Your task to perform on an android device: turn off notifications in google photos Image 0: 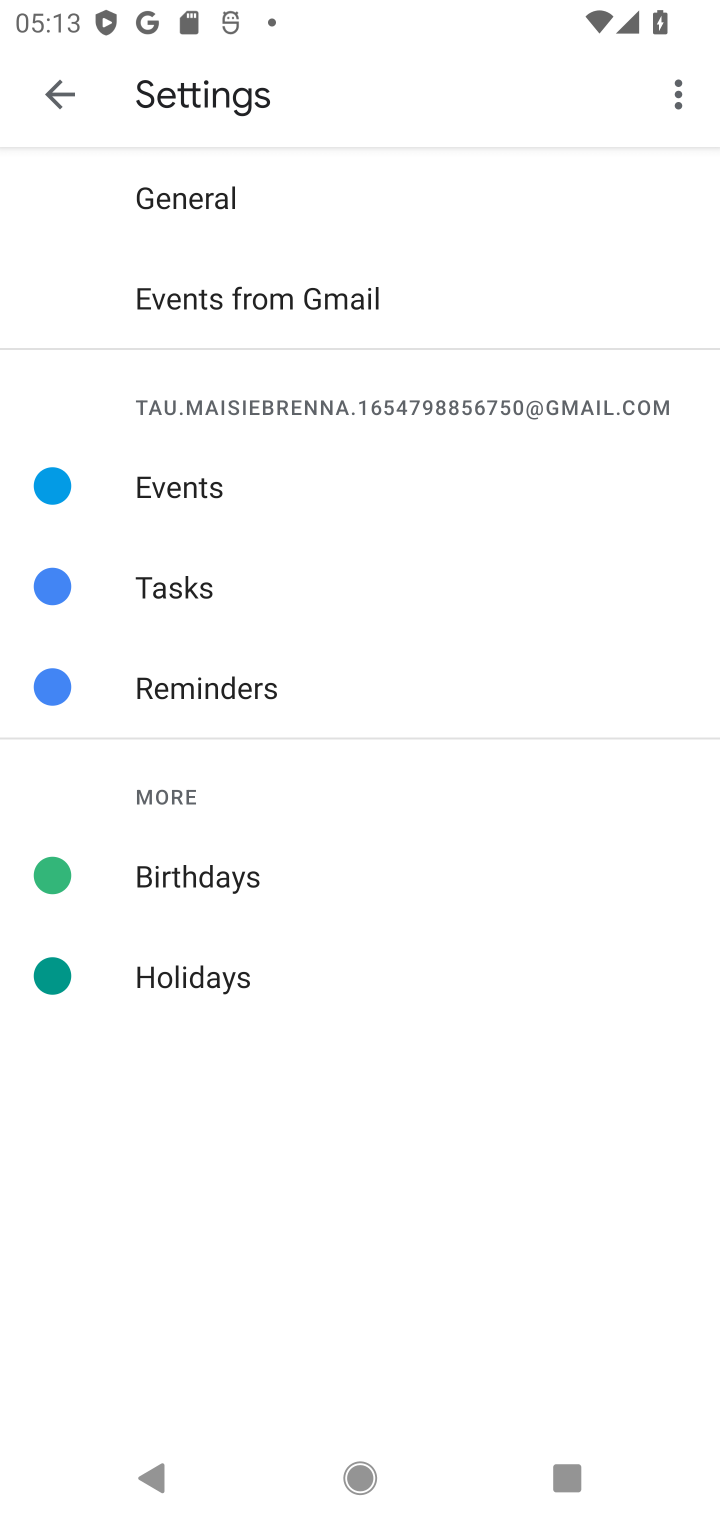
Step 0: press home button
Your task to perform on an android device: turn off notifications in google photos Image 1: 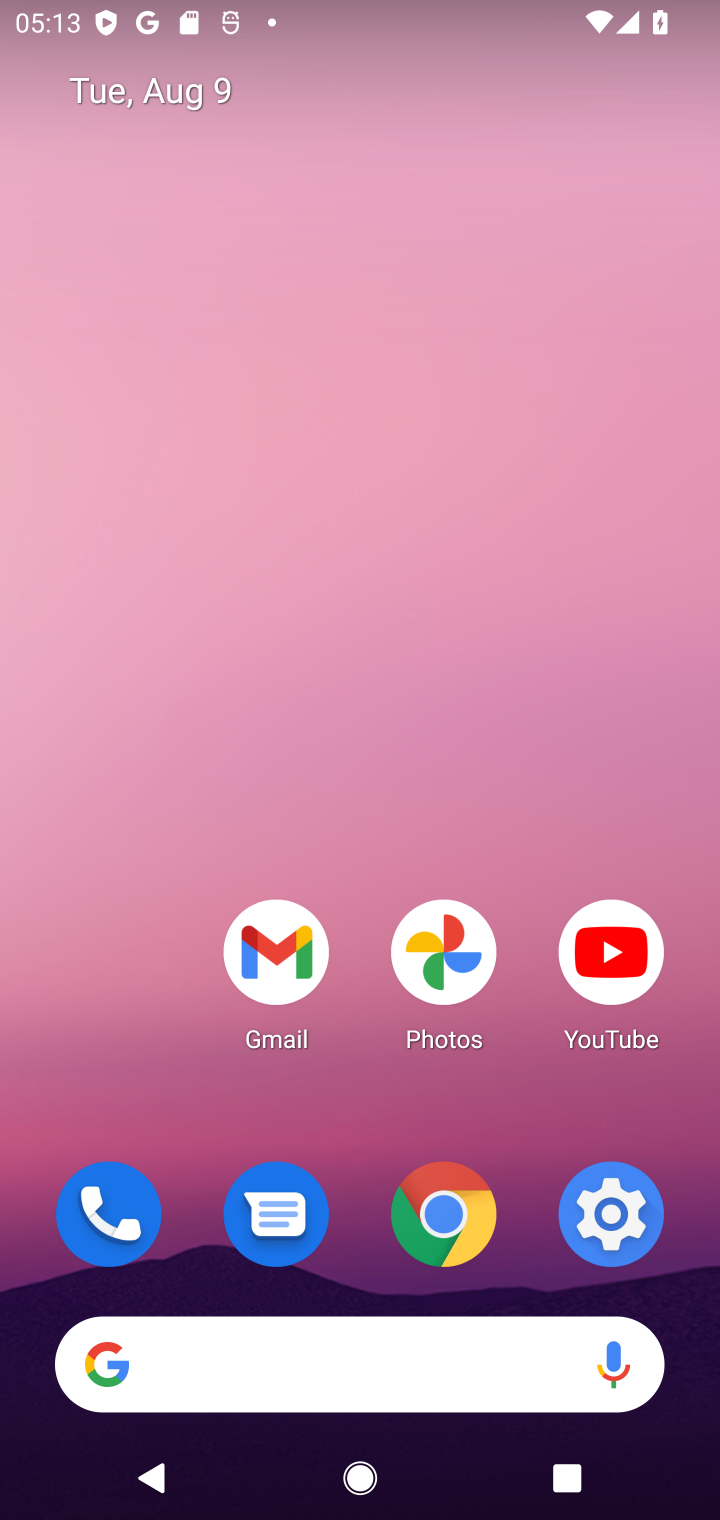
Step 1: drag from (391, 1422) to (312, 84)
Your task to perform on an android device: turn off notifications in google photos Image 2: 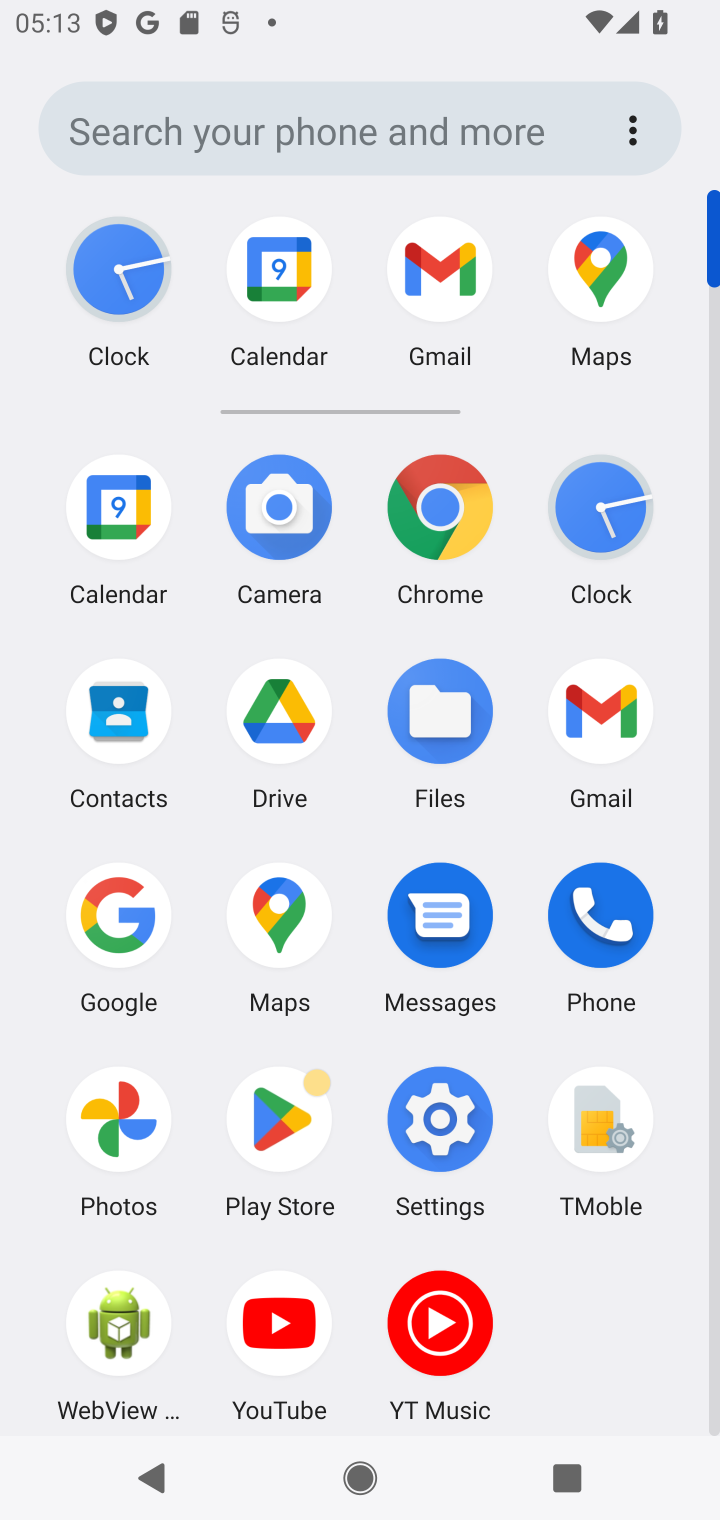
Step 2: click (124, 1101)
Your task to perform on an android device: turn off notifications in google photos Image 3: 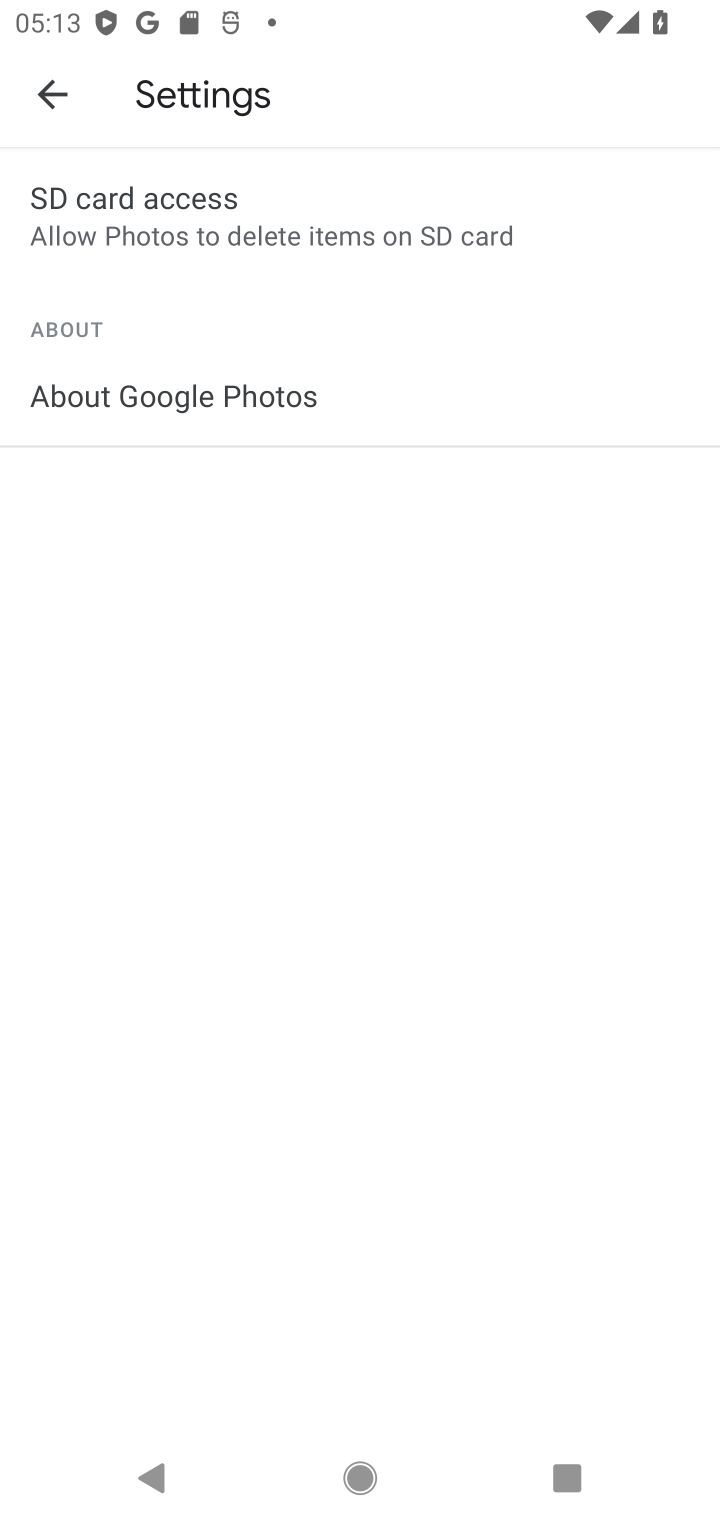
Step 3: click (36, 97)
Your task to perform on an android device: turn off notifications in google photos Image 4: 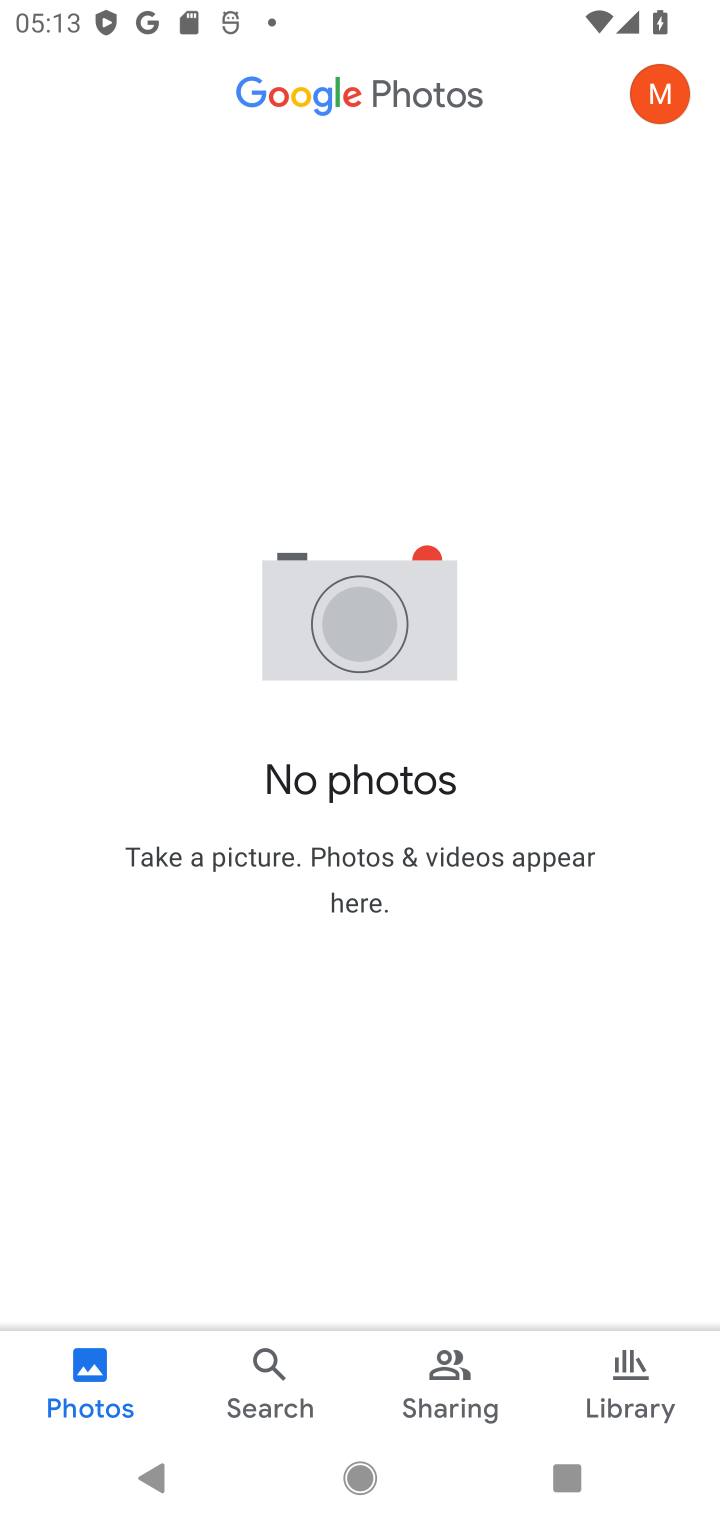
Step 4: click (660, 110)
Your task to perform on an android device: turn off notifications in google photos Image 5: 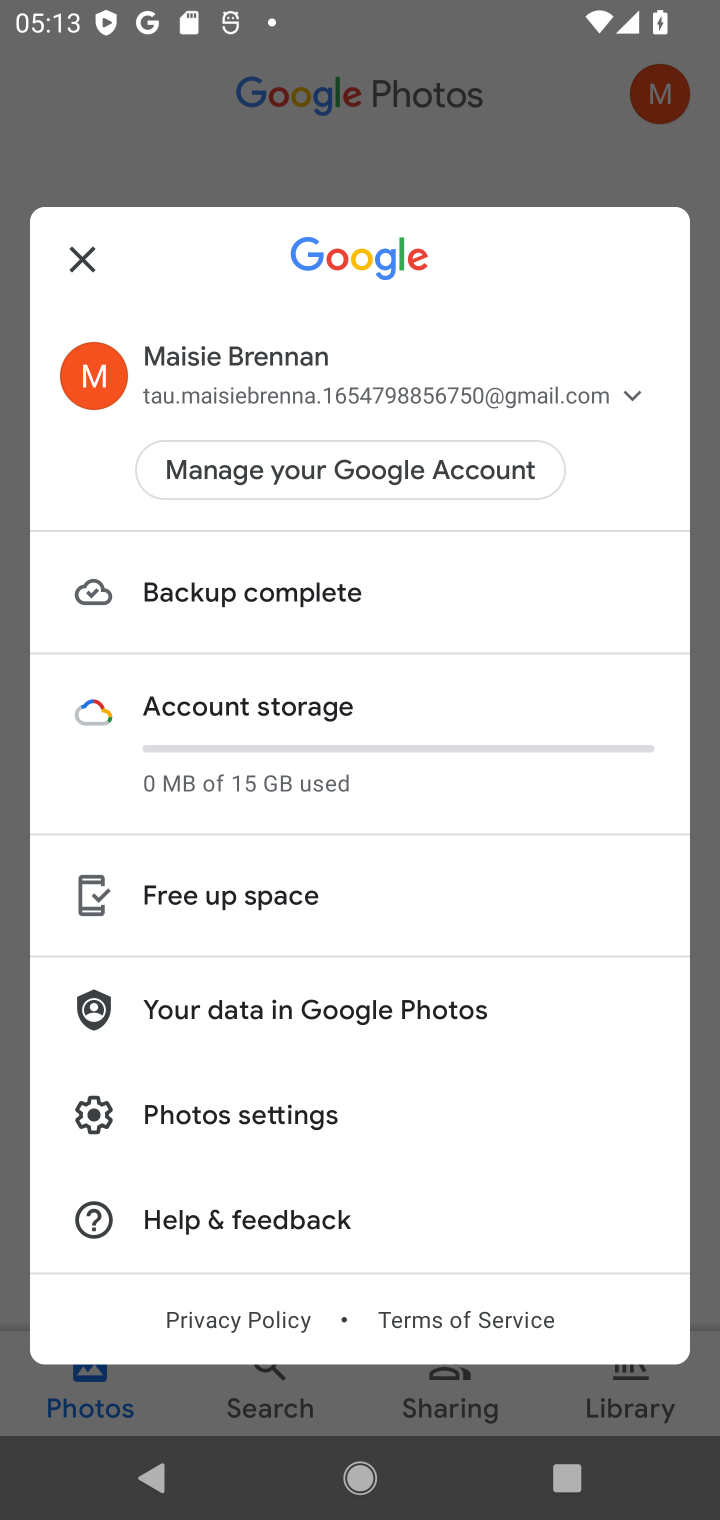
Step 5: click (277, 1115)
Your task to perform on an android device: turn off notifications in google photos Image 6: 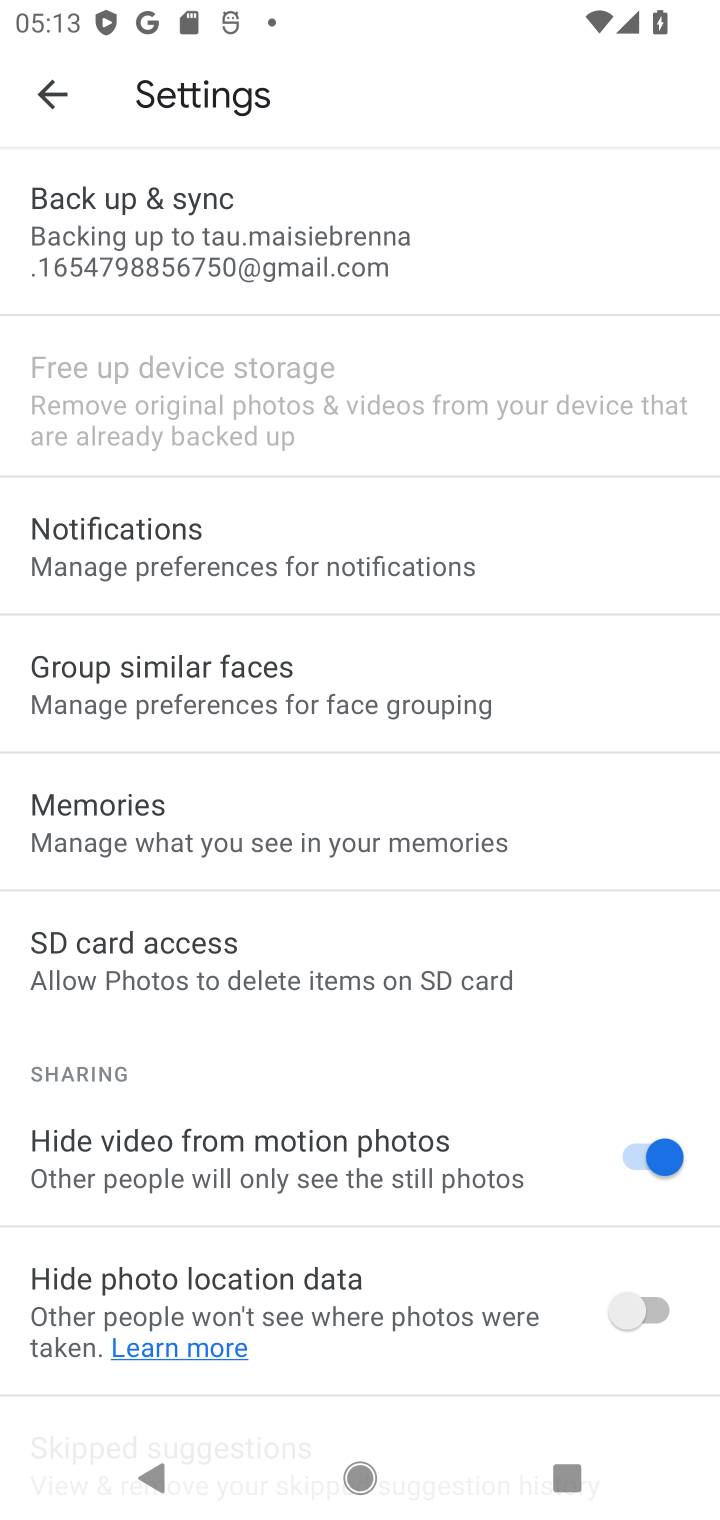
Step 6: click (183, 538)
Your task to perform on an android device: turn off notifications in google photos Image 7: 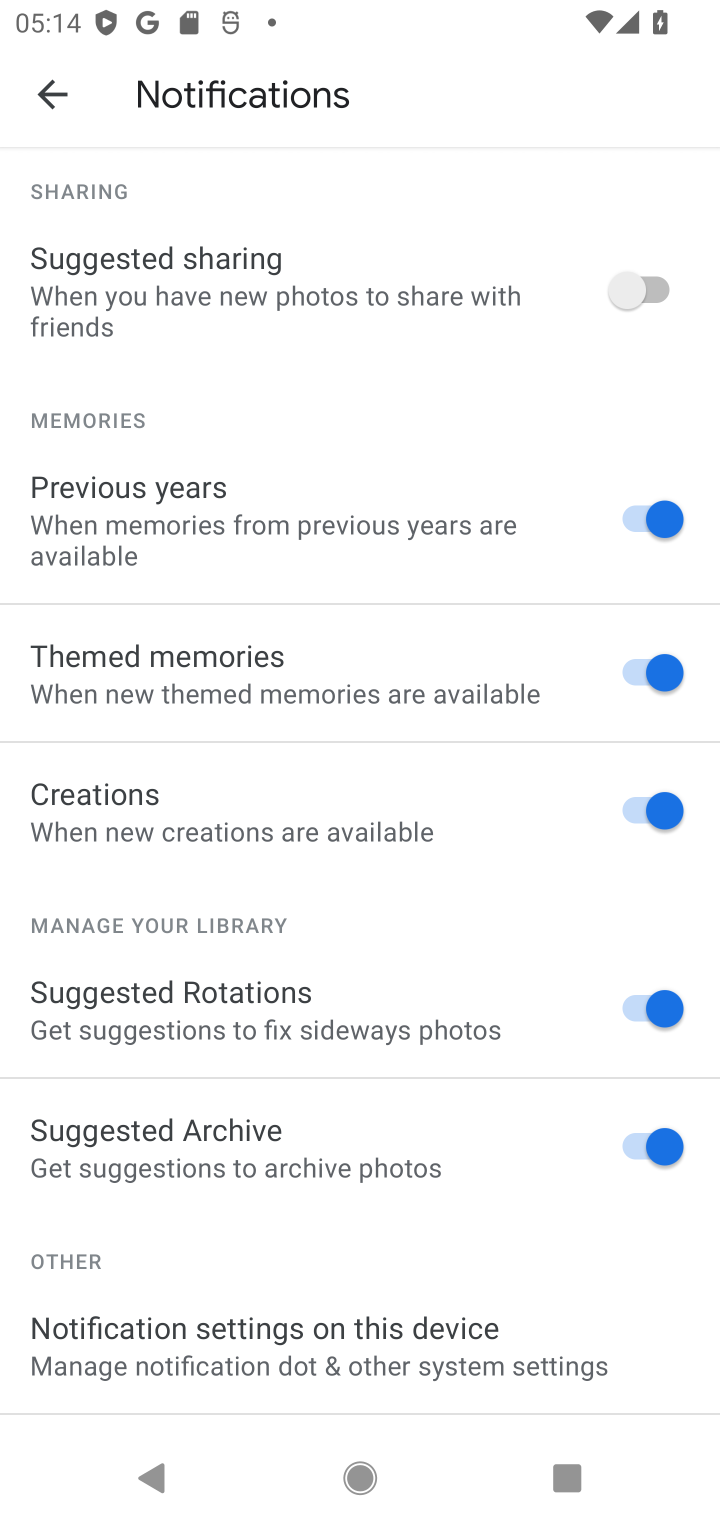
Step 7: click (502, 1339)
Your task to perform on an android device: turn off notifications in google photos Image 8: 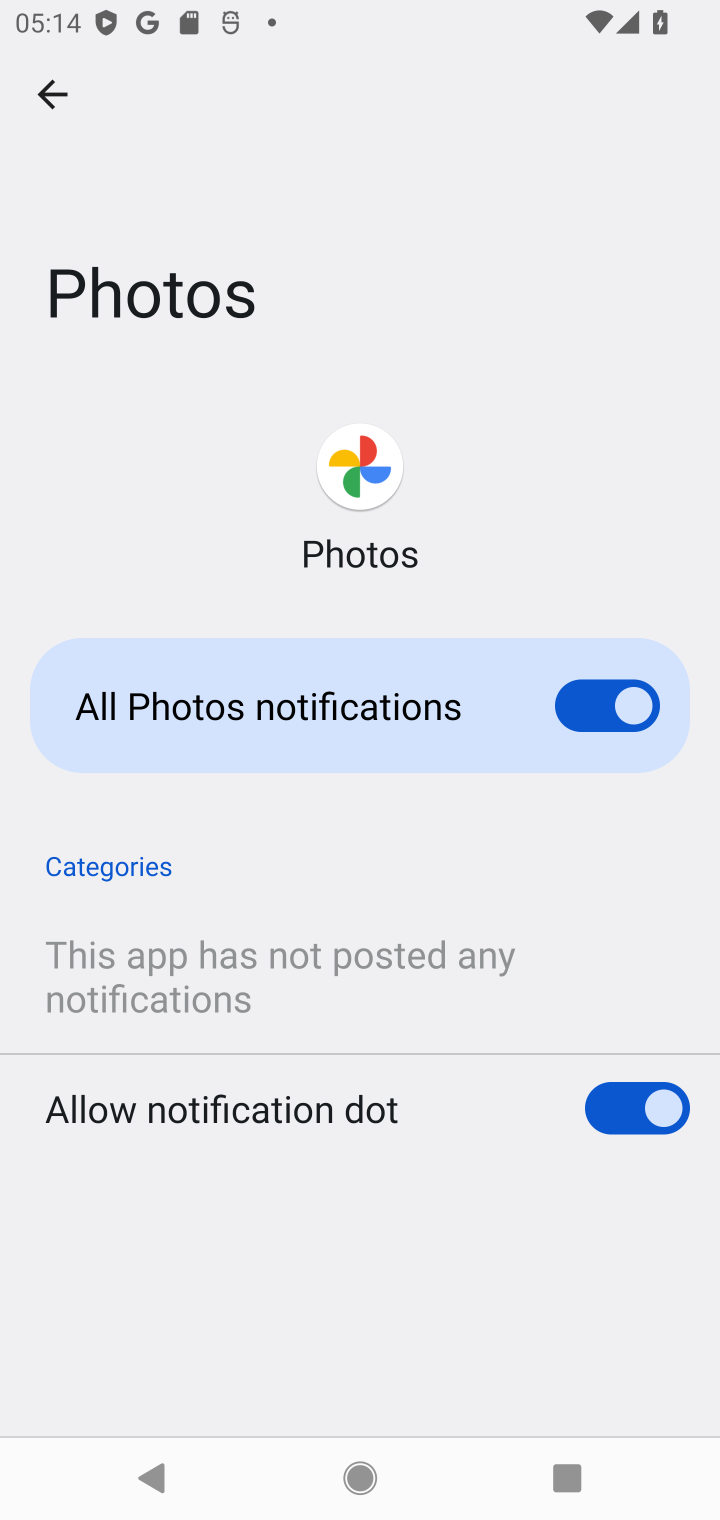
Step 8: click (594, 715)
Your task to perform on an android device: turn off notifications in google photos Image 9: 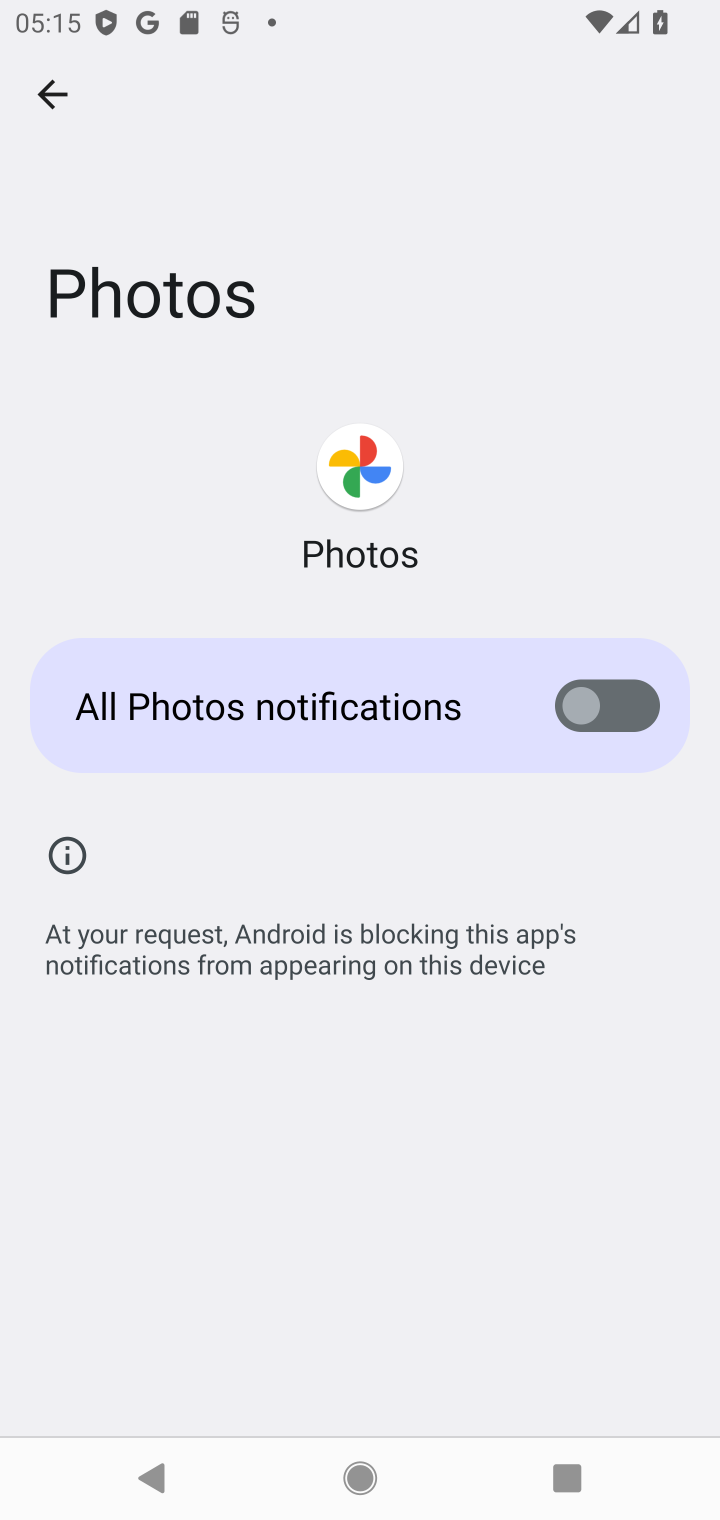
Step 9: task complete